Your task to perform on an android device: refresh tabs in the chrome app Image 0: 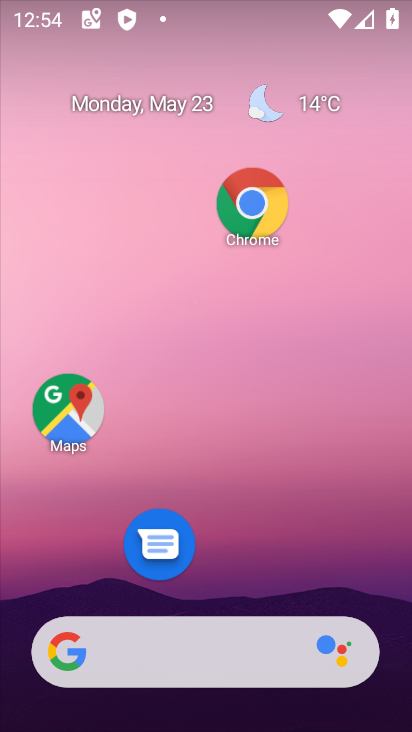
Step 0: click (256, 207)
Your task to perform on an android device: refresh tabs in the chrome app Image 1: 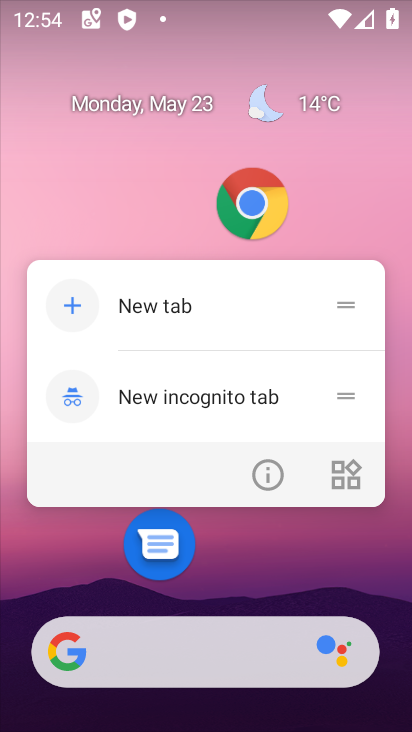
Step 1: click (251, 202)
Your task to perform on an android device: refresh tabs in the chrome app Image 2: 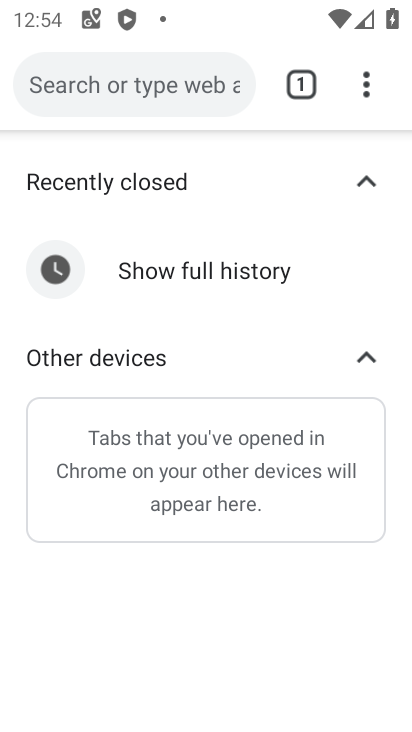
Step 2: click (368, 79)
Your task to perform on an android device: refresh tabs in the chrome app Image 3: 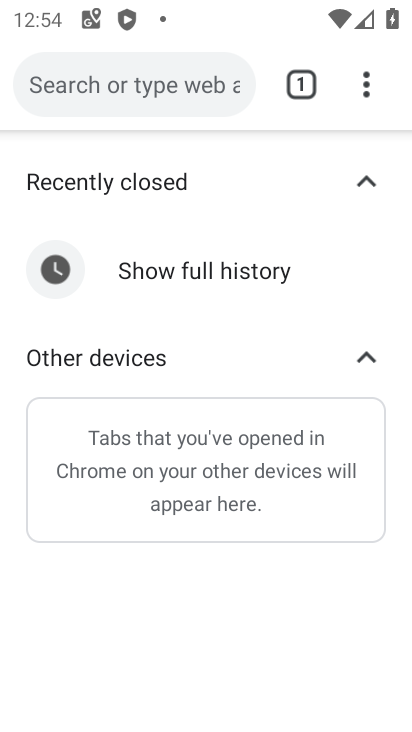
Step 3: task complete